Your task to perform on an android device: Open Youtube and go to the subscriptions tab Image 0: 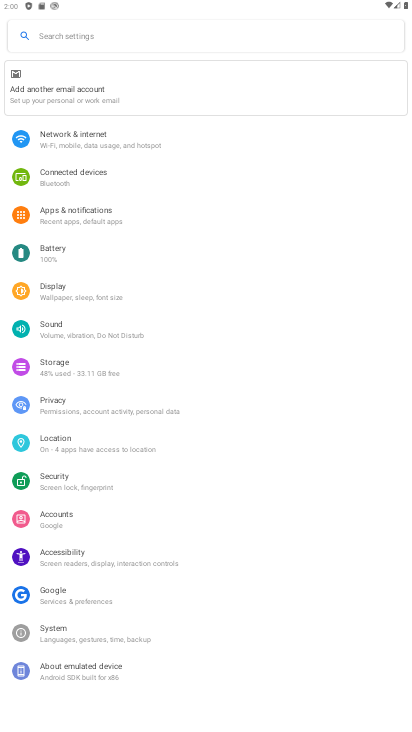
Step 0: press back button
Your task to perform on an android device: Open Youtube and go to the subscriptions tab Image 1: 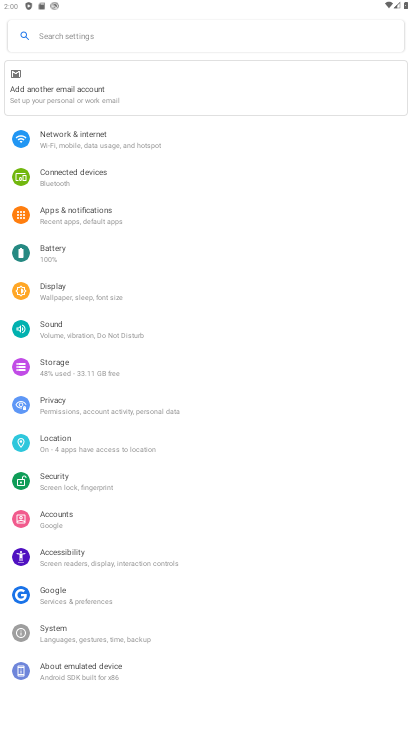
Step 1: press back button
Your task to perform on an android device: Open Youtube and go to the subscriptions tab Image 2: 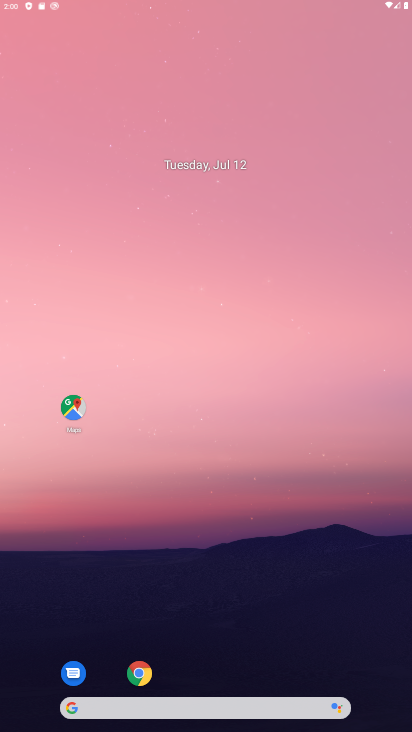
Step 2: press back button
Your task to perform on an android device: Open Youtube and go to the subscriptions tab Image 3: 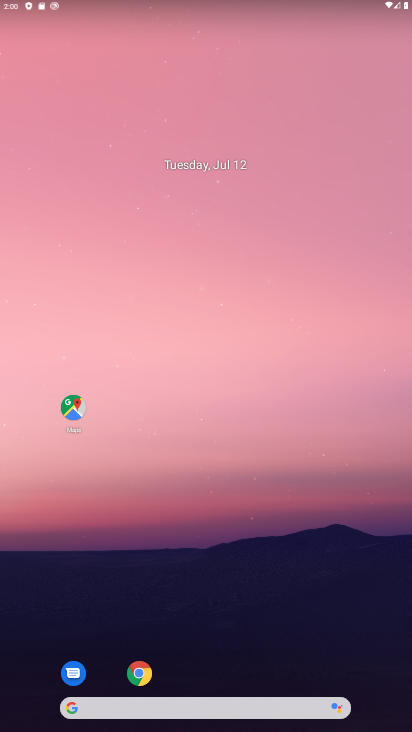
Step 3: drag from (288, 581) to (111, 43)
Your task to perform on an android device: Open Youtube and go to the subscriptions tab Image 4: 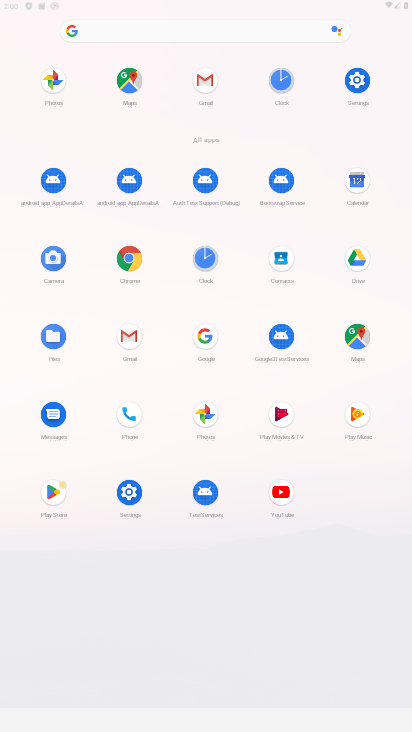
Step 4: drag from (184, 599) to (83, 2)
Your task to perform on an android device: Open Youtube and go to the subscriptions tab Image 5: 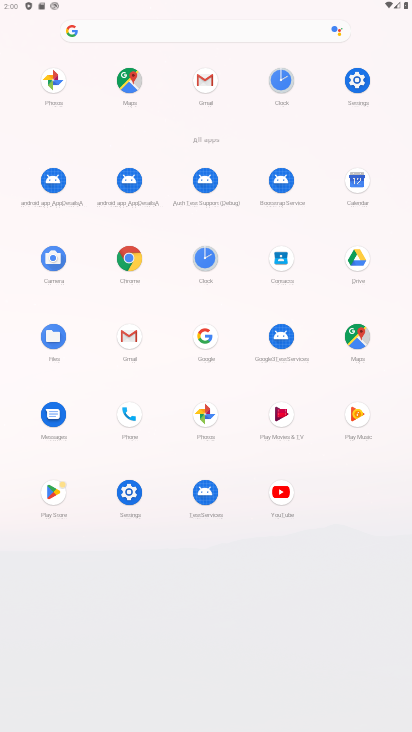
Step 5: click (281, 490)
Your task to perform on an android device: Open Youtube and go to the subscriptions tab Image 6: 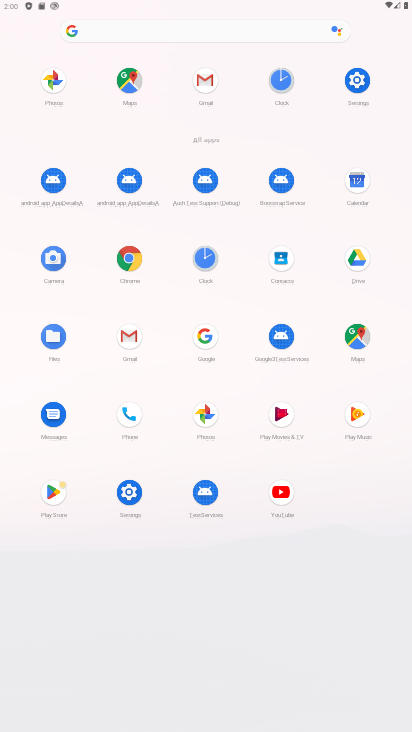
Step 6: click (281, 493)
Your task to perform on an android device: Open Youtube and go to the subscriptions tab Image 7: 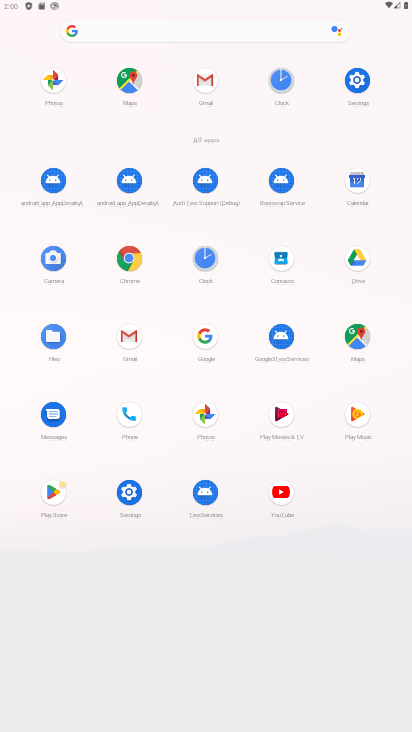
Step 7: click (284, 495)
Your task to perform on an android device: Open Youtube and go to the subscriptions tab Image 8: 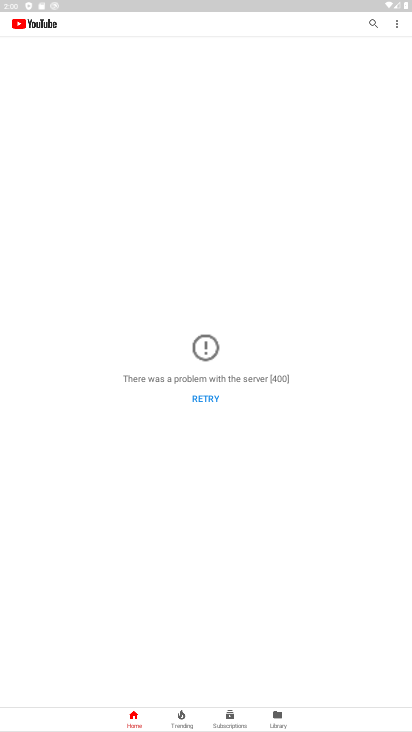
Step 8: press back button
Your task to perform on an android device: Open Youtube and go to the subscriptions tab Image 9: 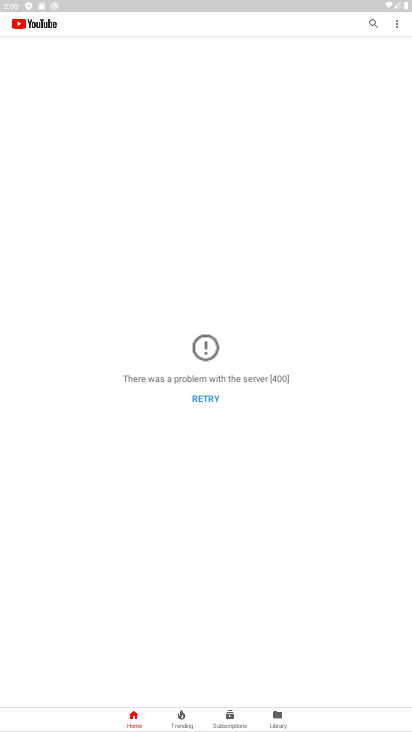
Step 9: press back button
Your task to perform on an android device: Open Youtube and go to the subscriptions tab Image 10: 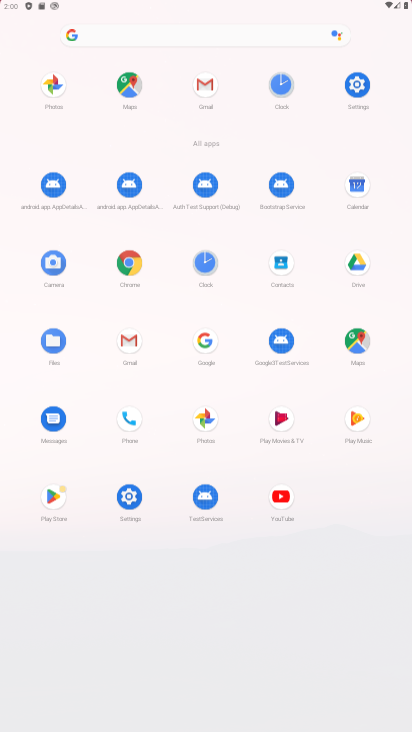
Step 10: press back button
Your task to perform on an android device: Open Youtube and go to the subscriptions tab Image 11: 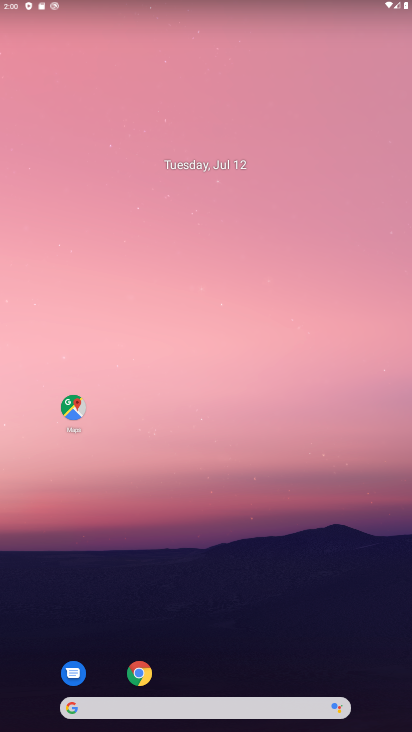
Step 11: drag from (215, 677) to (184, 72)
Your task to perform on an android device: Open Youtube and go to the subscriptions tab Image 12: 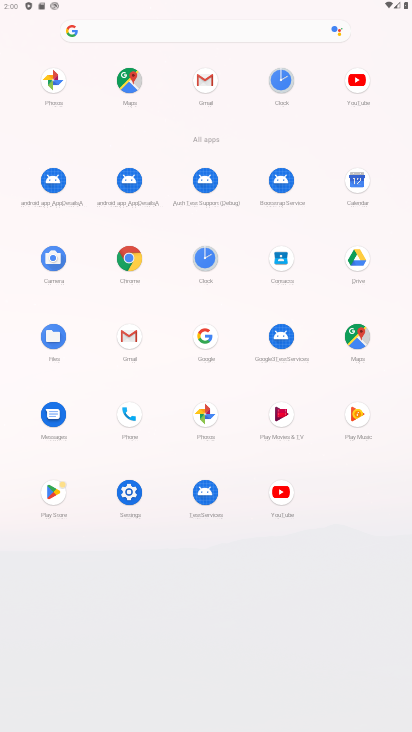
Step 12: click (282, 483)
Your task to perform on an android device: Open Youtube and go to the subscriptions tab Image 13: 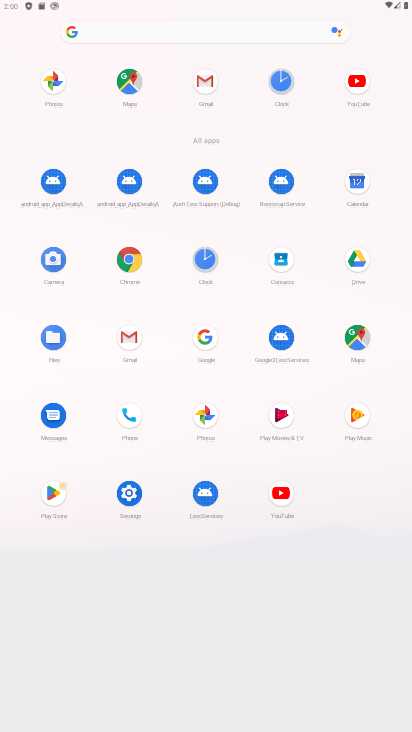
Step 13: click (285, 488)
Your task to perform on an android device: Open Youtube and go to the subscriptions tab Image 14: 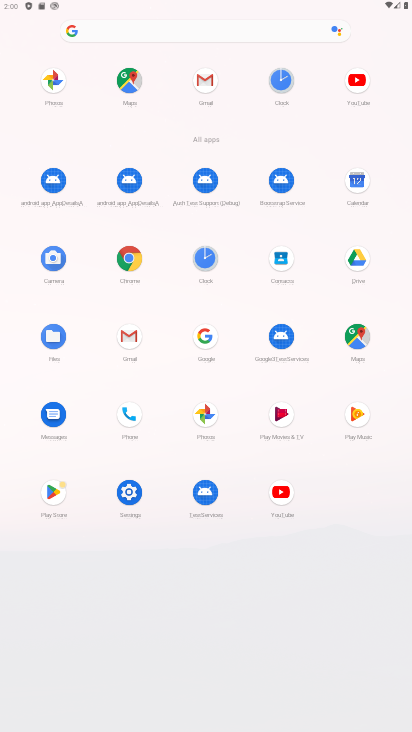
Step 14: click (285, 488)
Your task to perform on an android device: Open Youtube and go to the subscriptions tab Image 15: 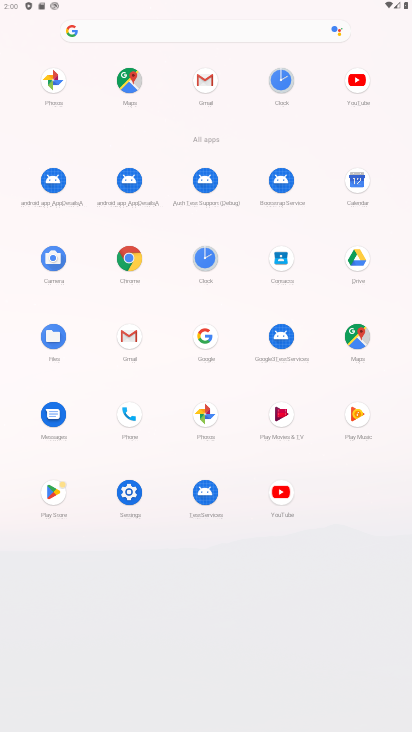
Step 15: click (287, 489)
Your task to perform on an android device: Open Youtube and go to the subscriptions tab Image 16: 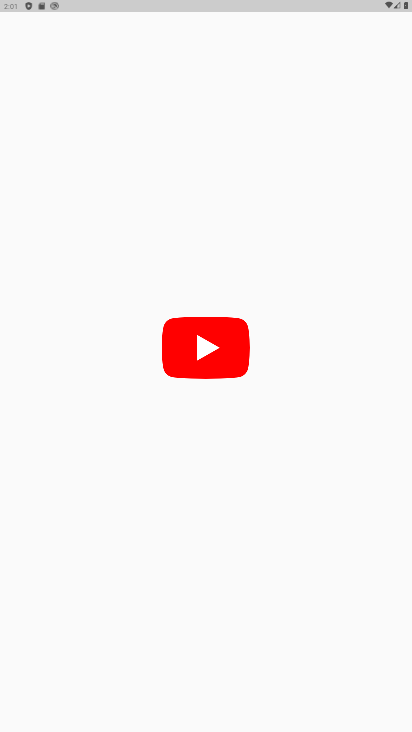
Step 16: click (287, 489)
Your task to perform on an android device: Open Youtube and go to the subscriptions tab Image 17: 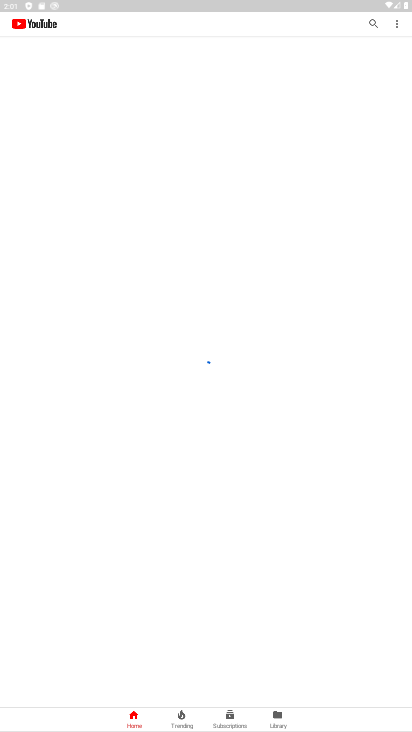
Step 17: task complete